Your task to perform on an android device: Open the map Image 0: 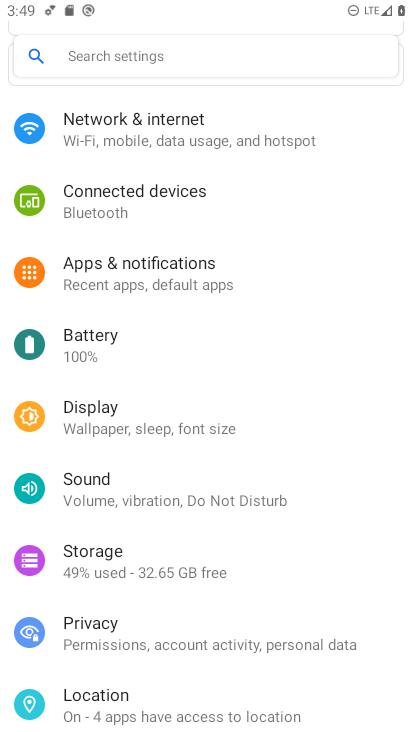
Step 0: press home button
Your task to perform on an android device: Open the map Image 1: 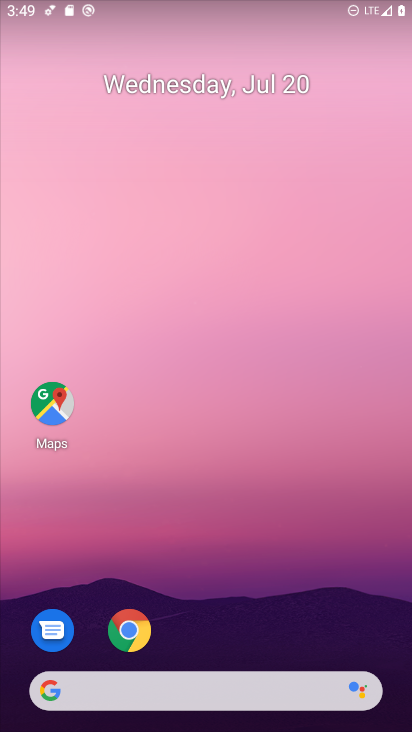
Step 1: click (47, 398)
Your task to perform on an android device: Open the map Image 2: 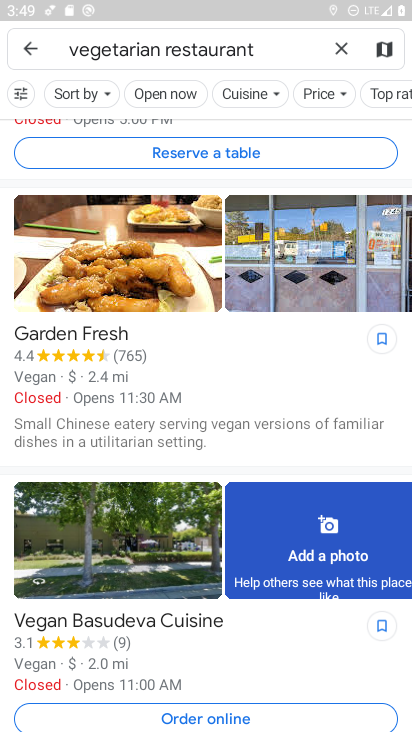
Step 2: click (29, 42)
Your task to perform on an android device: Open the map Image 3: 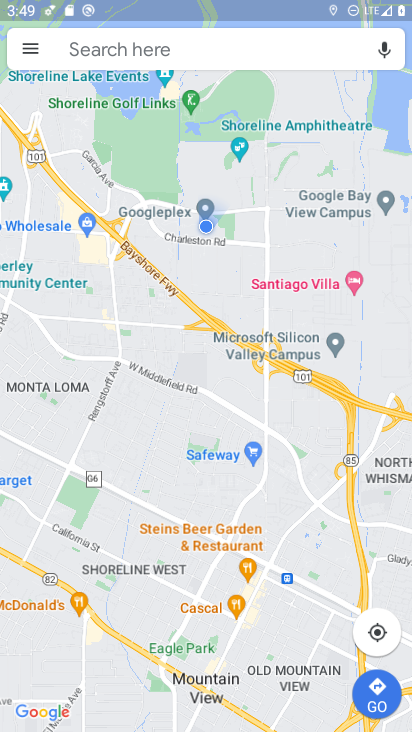
Step 3: task complete